Your task to perform on an android device: toggle location history Image 0: 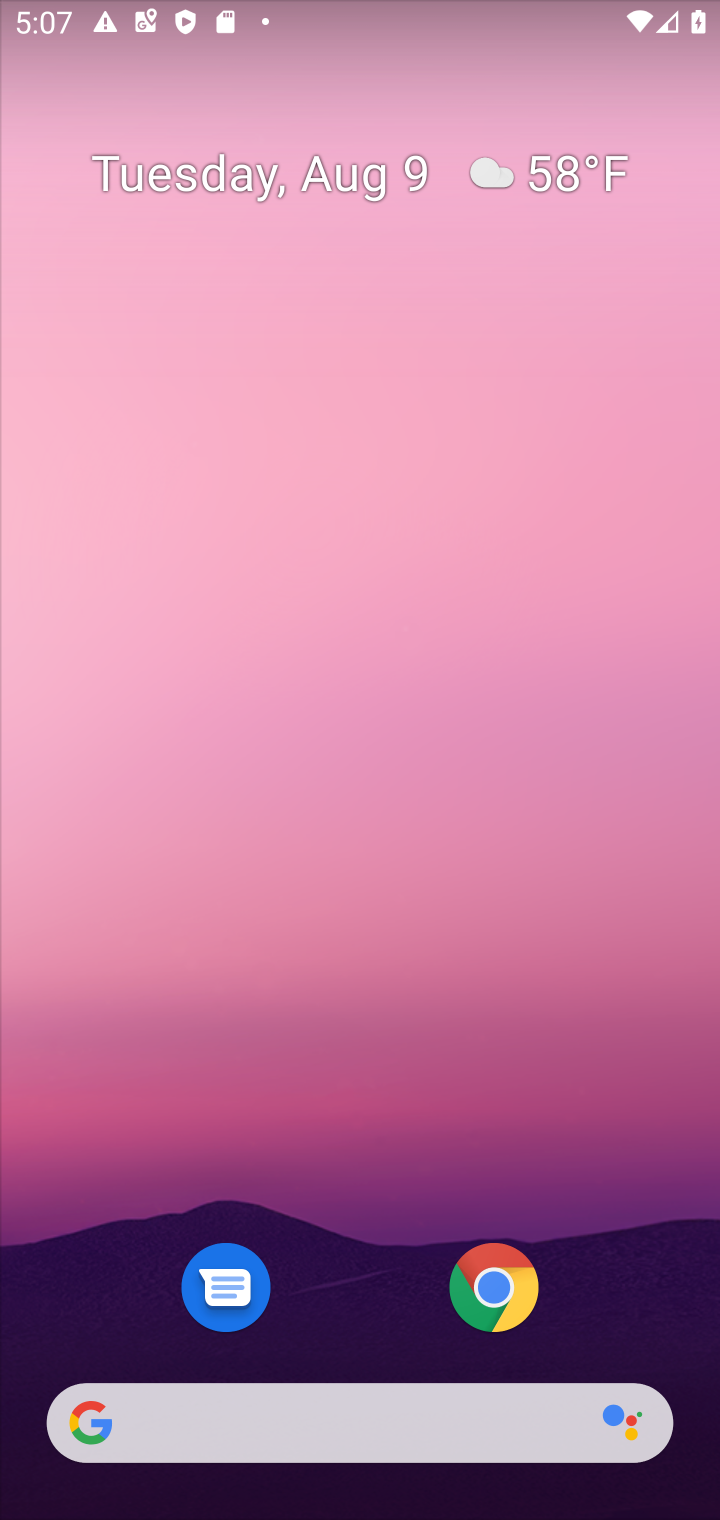
Step 0: drag from (404, 1179) to (493, 428)
Your task to perform on an android device: toggle location history Image 1: 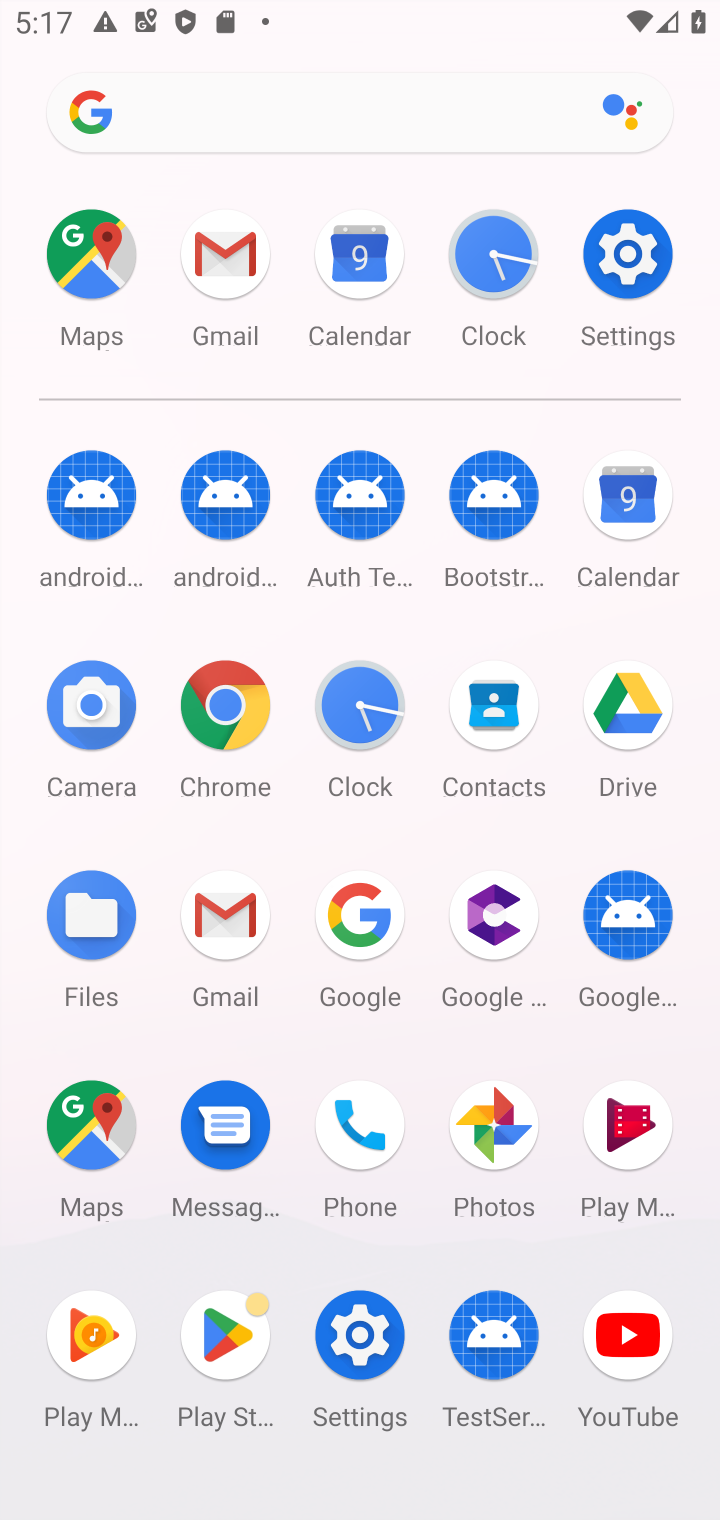
Step 1: click (355, 1350)
Your task to perform on an android device: toggle location history Image 2: 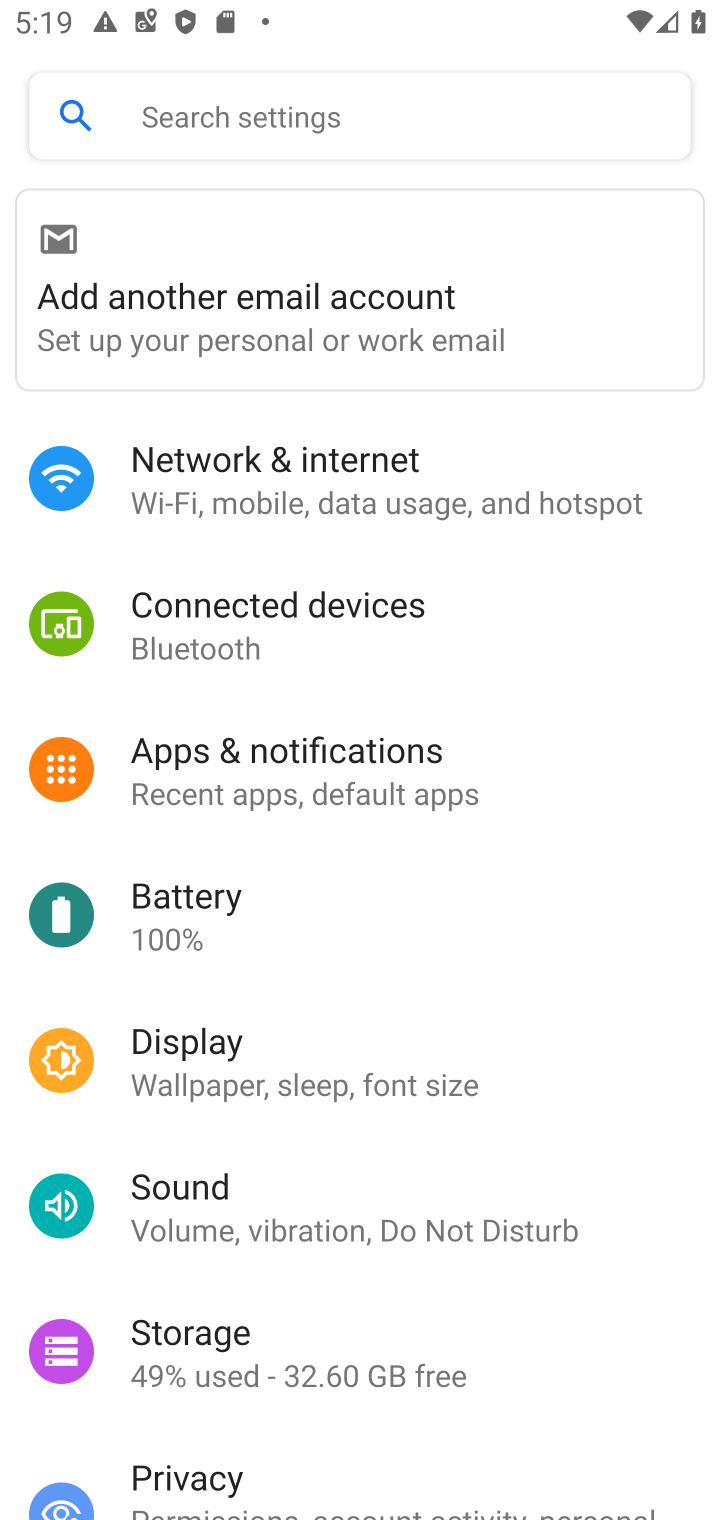
Step 2: drag from (437, 906) to (419, 354)
Your task to perform on an android device: toggle location history Image 3: 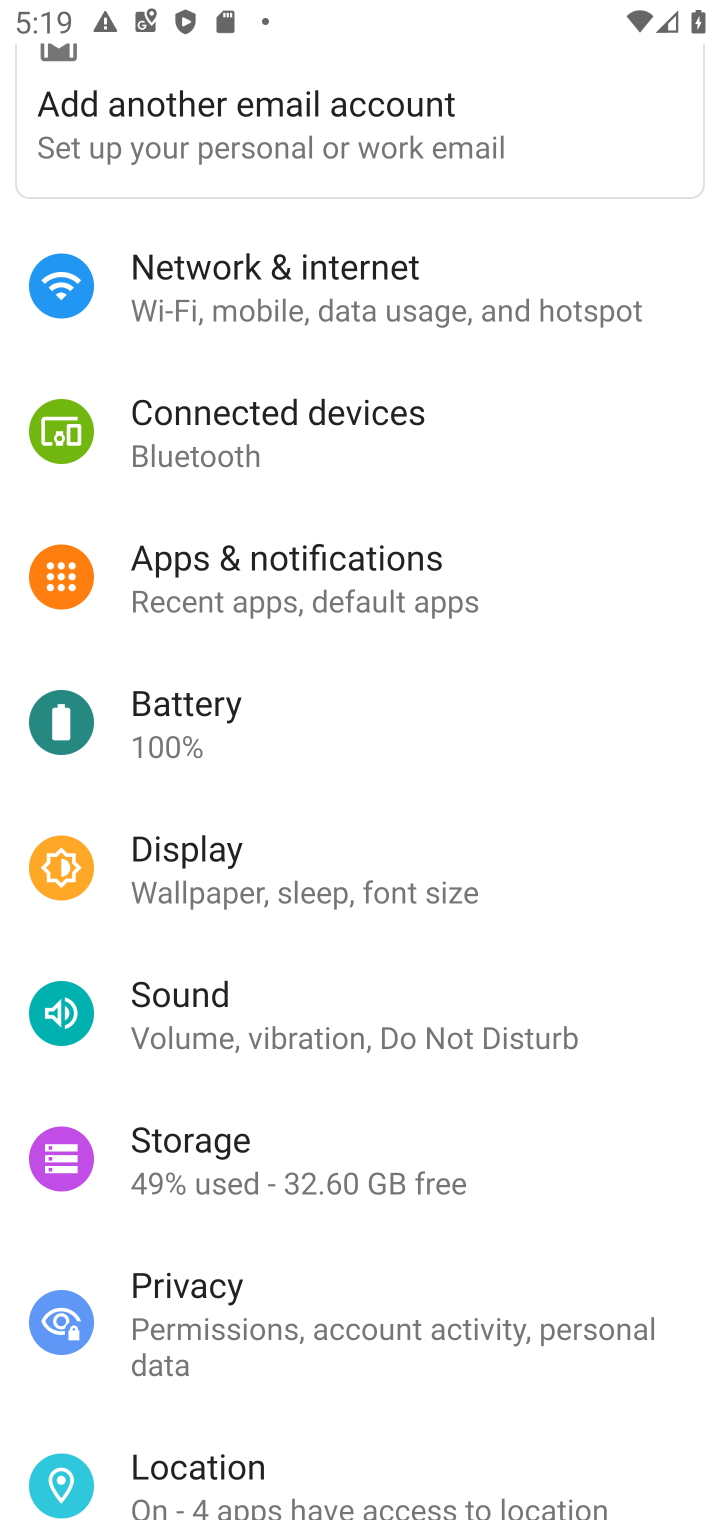
Step 3: drag from (447, 746) to (486, 454)
Your task to perform on an android device: toggle location history Image 4: 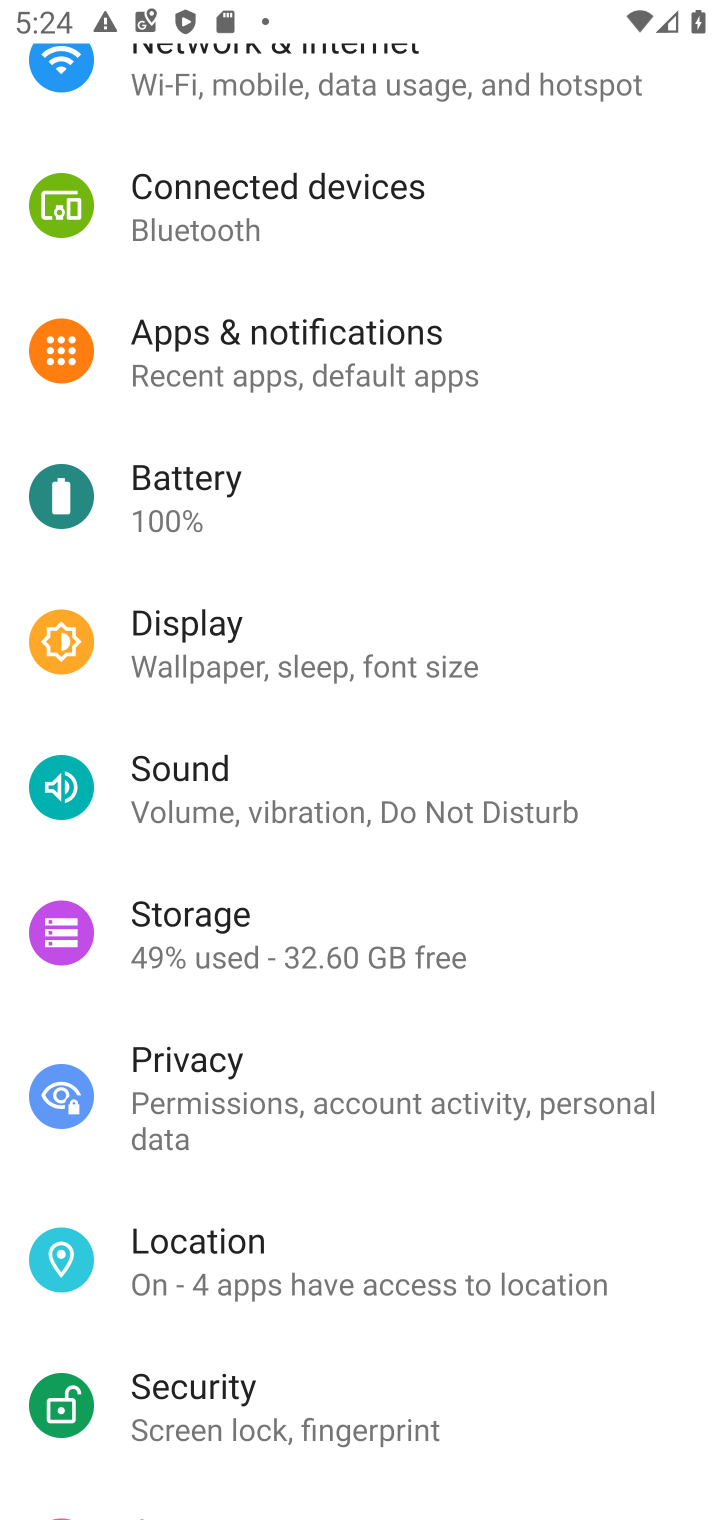
Step 4: press home button
Your task to perform on an android device: toggle location history Image 5: 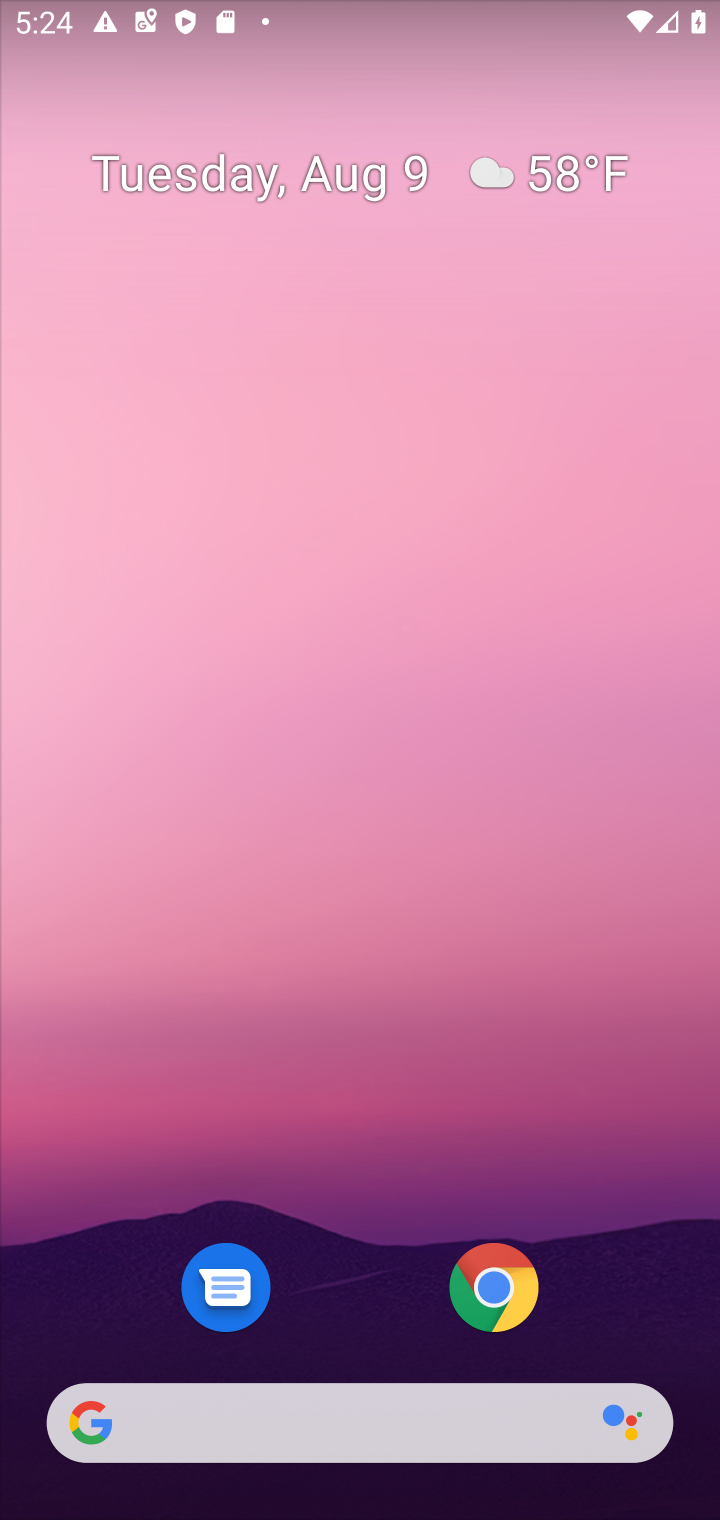
Step 5: drag from (382, 1046) to (402, 110)
Your task to perform on an android device: toggle location history Image 6: 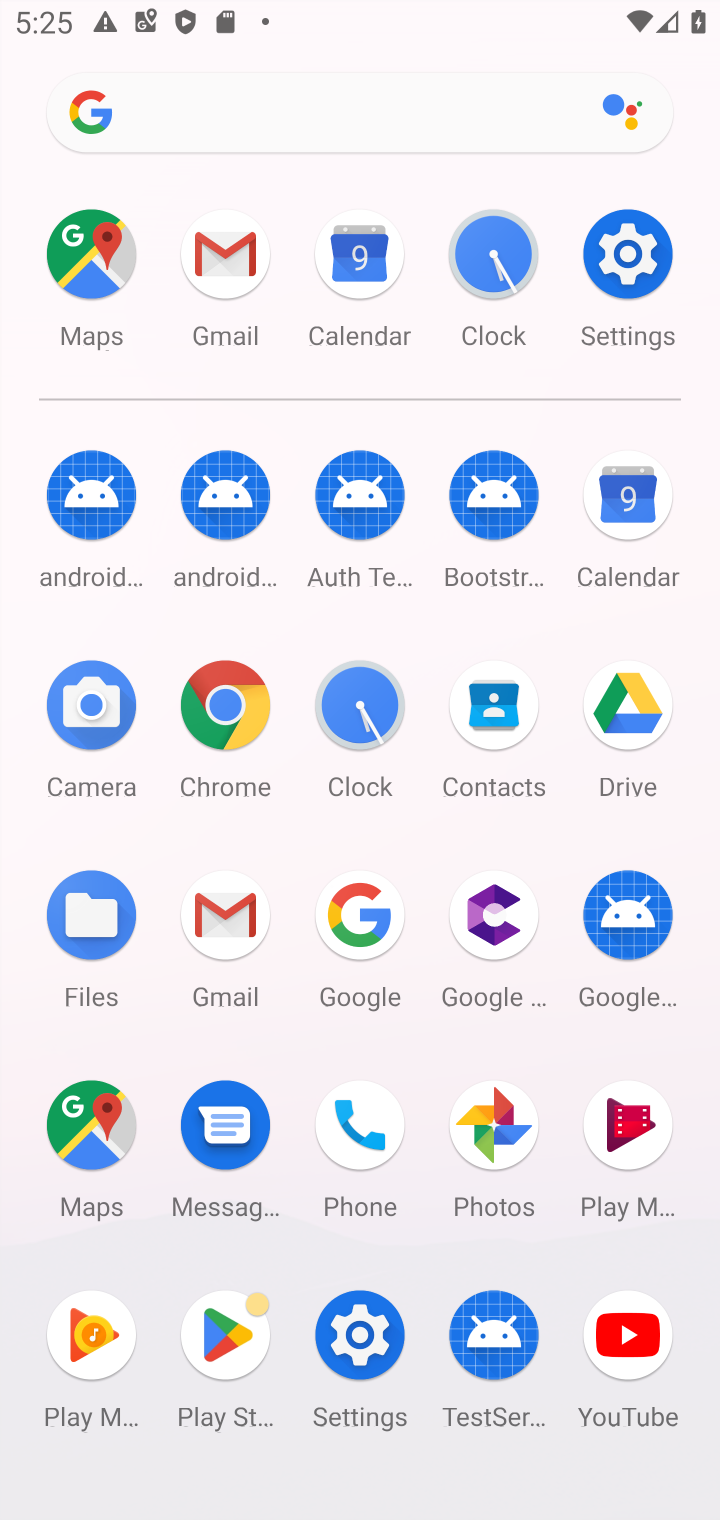
Step 6: click (363, 1367)
Your task to perform on an android device: toggle location history Image 7: 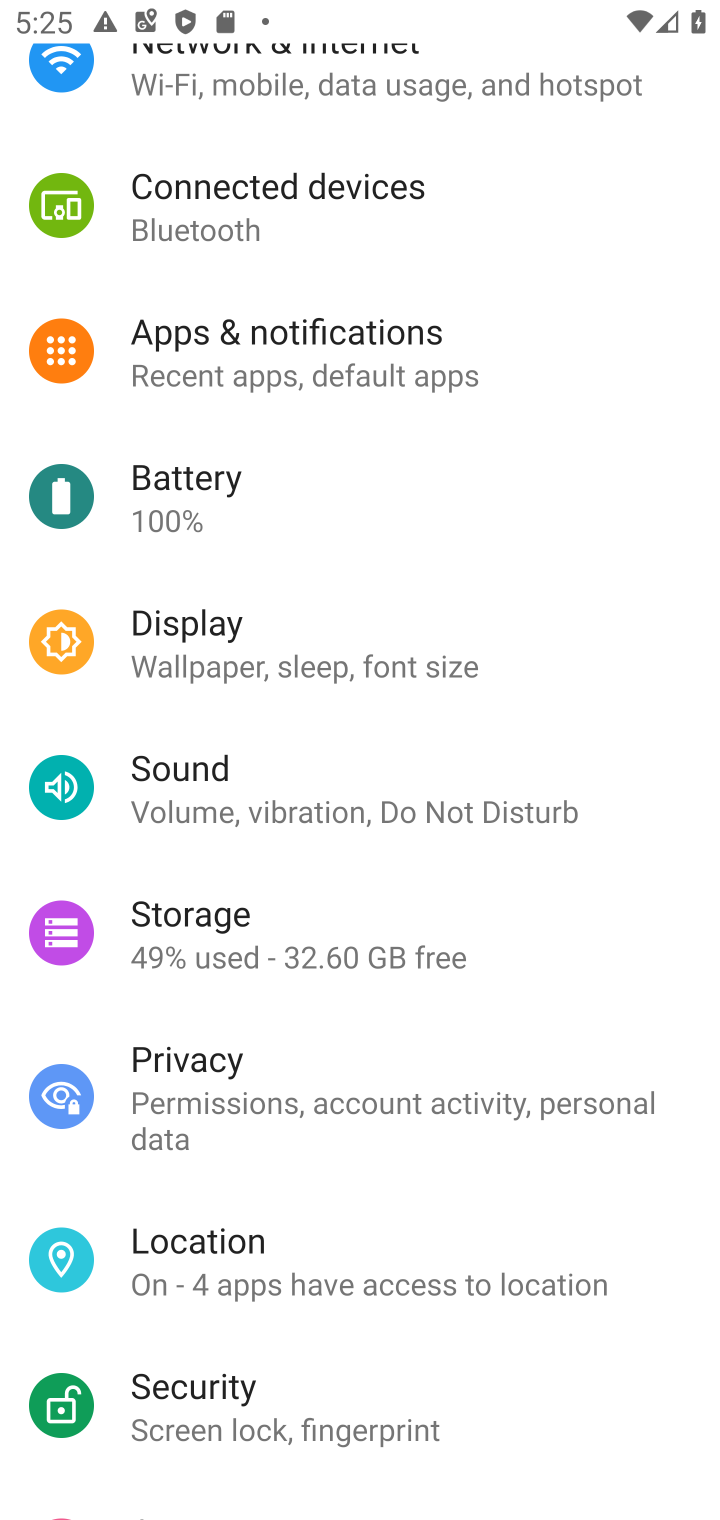
Step 7: drag from (412, 935) to (418, 393)
Your task to perform on an android device: toggle location history Image 8: 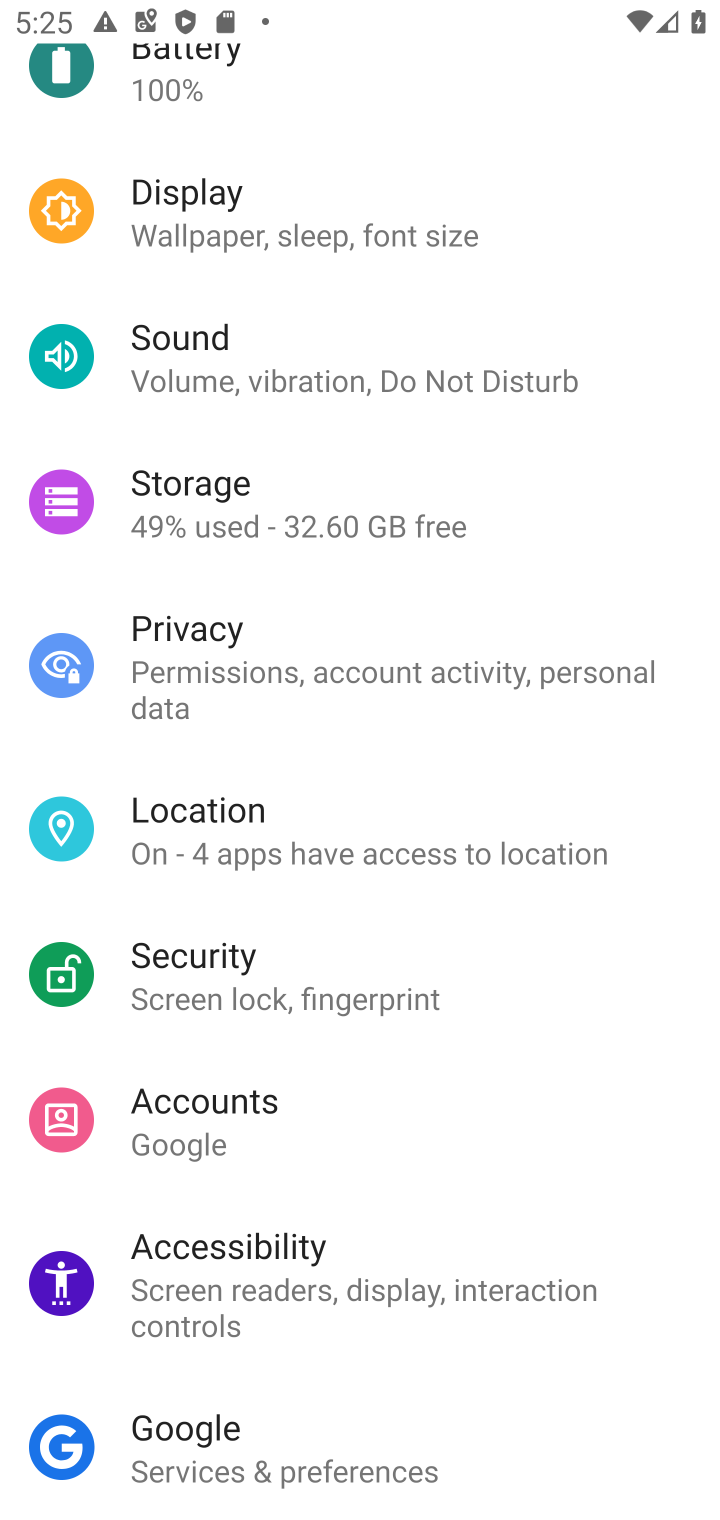
Step 8: drag from (407, 1367) to (374, 708)
Your task to perform on an android device: toggle location history Image 9: 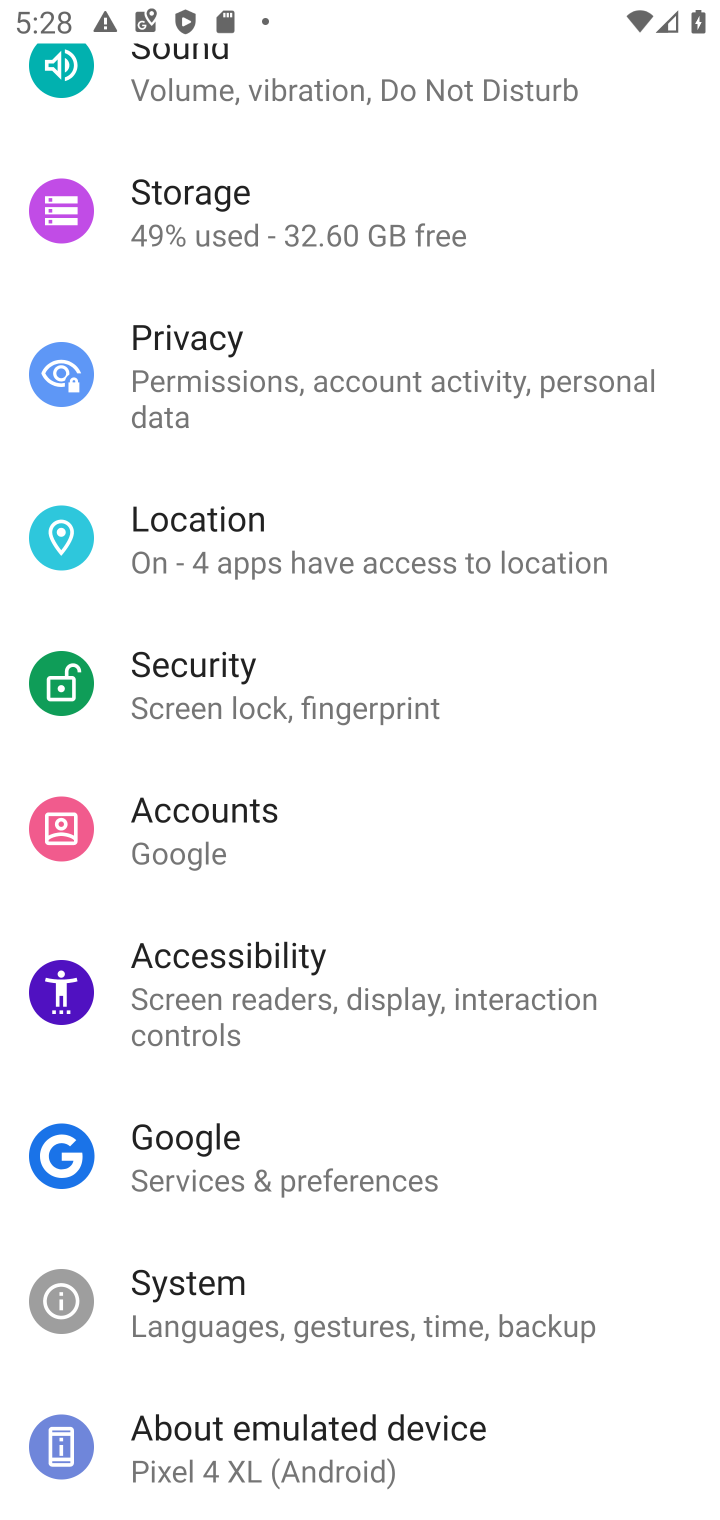
Step 9: press home button
Your task to perform on an android device: toggle location history Image 10: 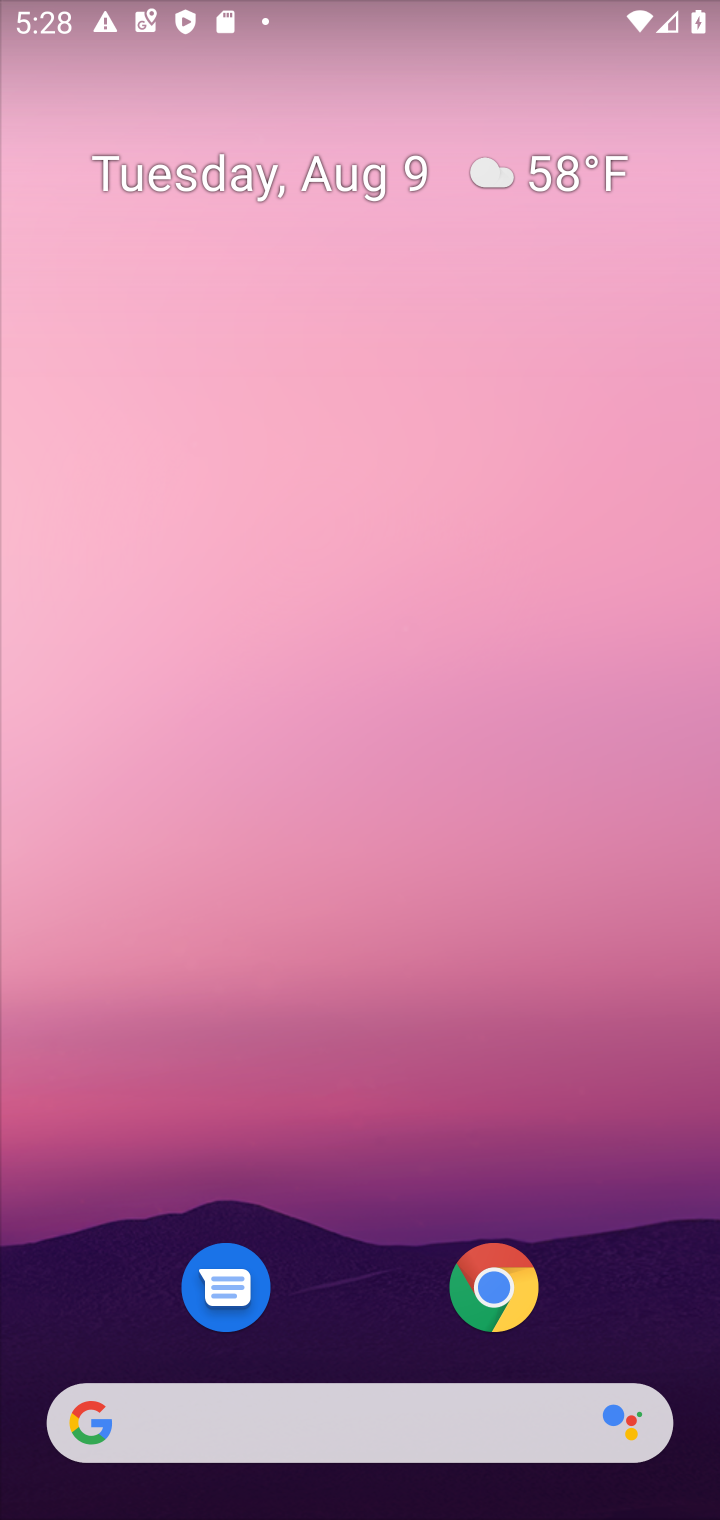
Step 10: click (469, 1279)
Your task to perform on an android device: toggle location history Image 11: 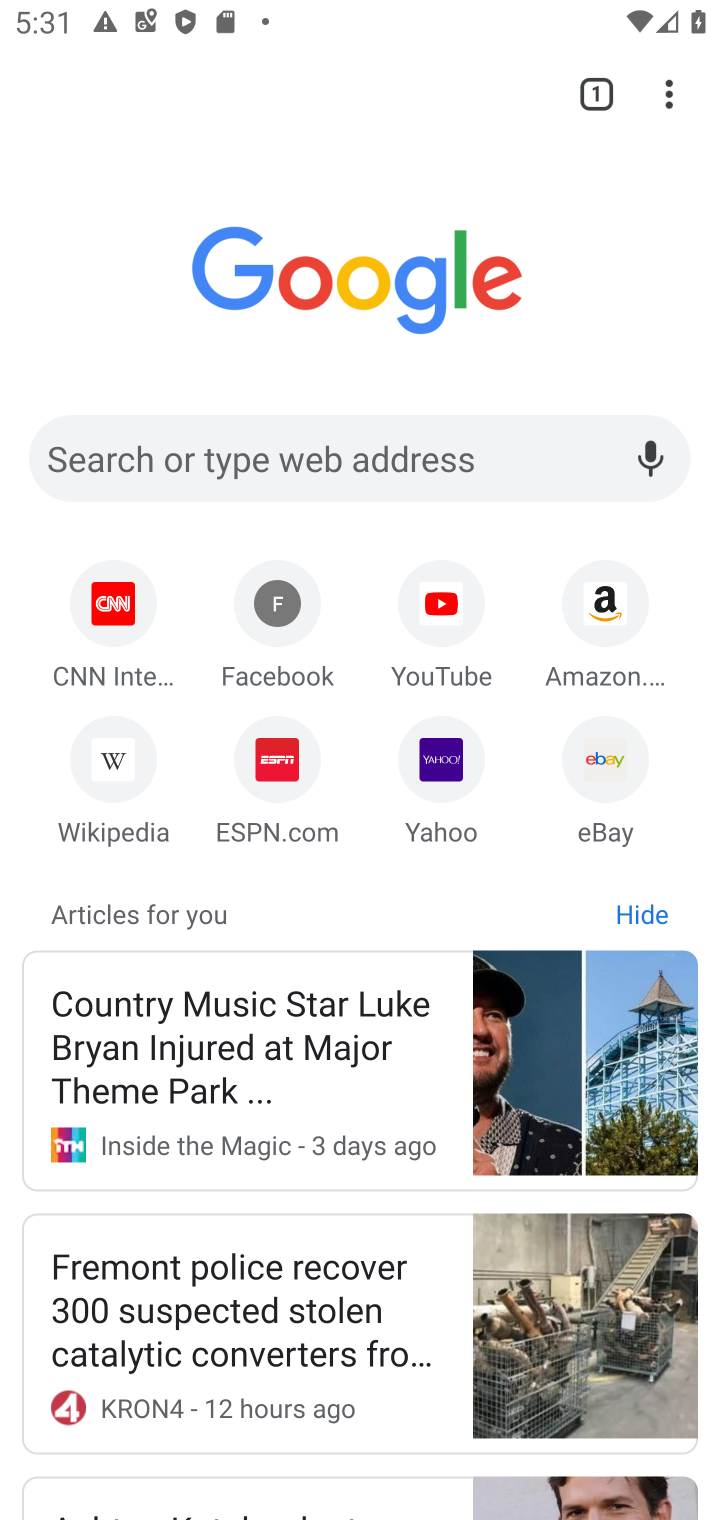
Step 11: press home button
Your task to perform on an android device: toggle location history Image 12: 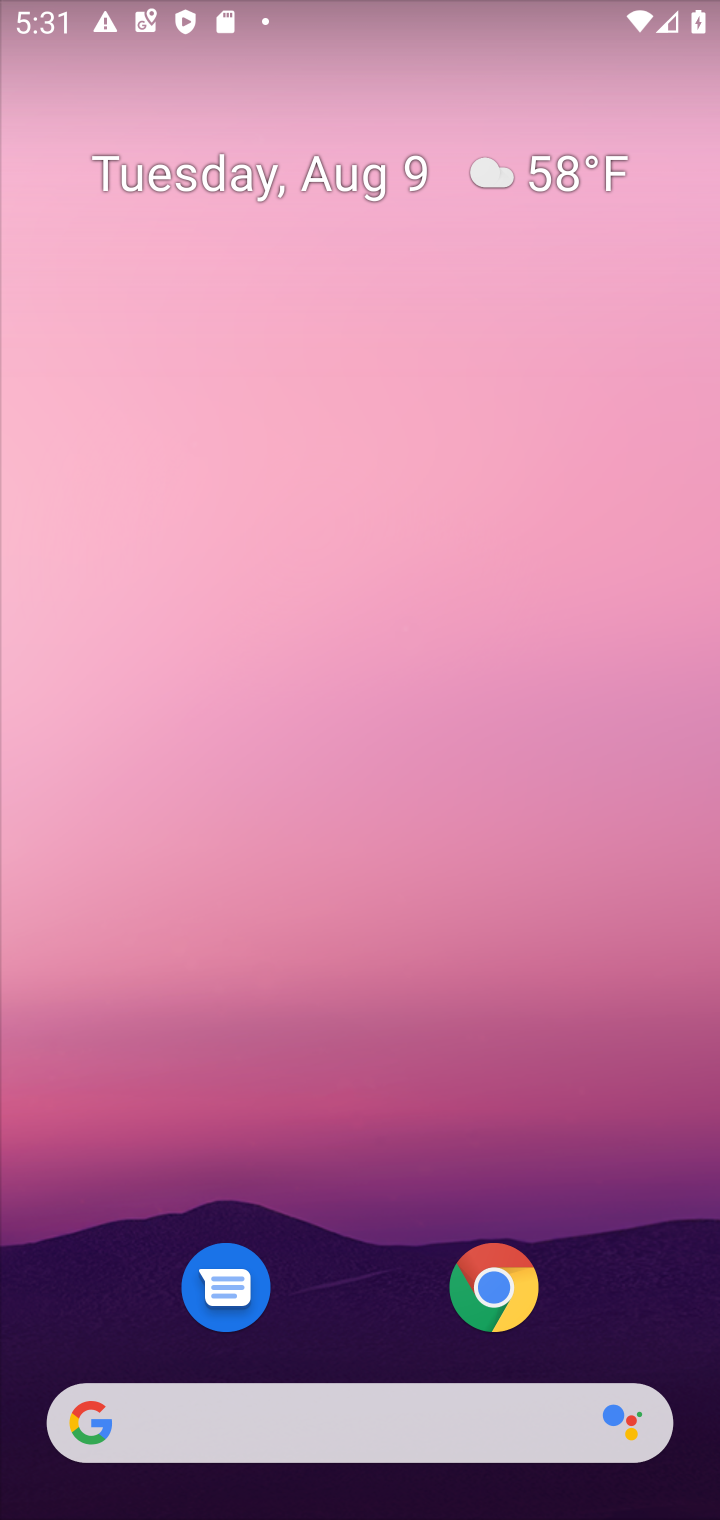
Step 12: drag from (325, 337) to (344, 227)
Your task to perform on an android device: toggle location history Image 13: 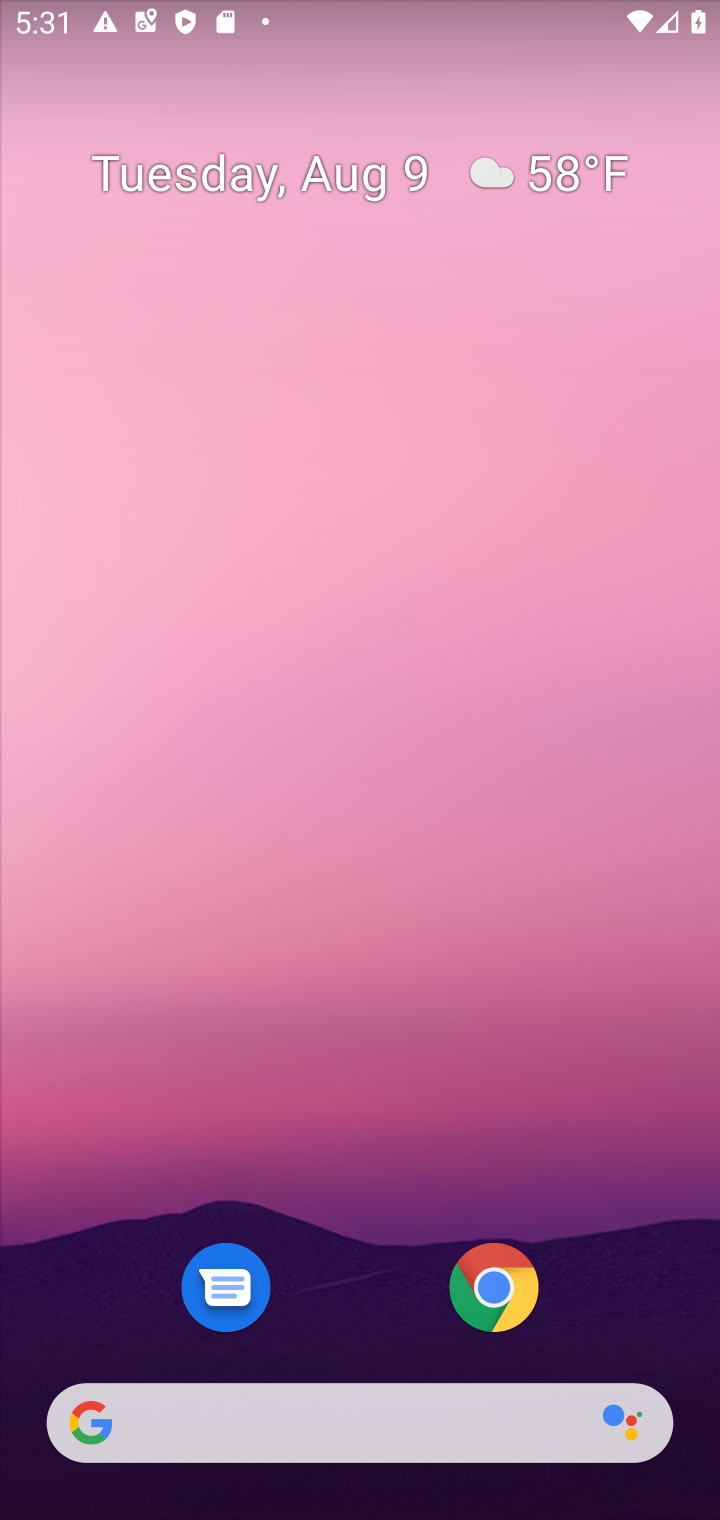
Step 13: drag from (328, 449) to (323, 52)
Your task to perform on an android device: toggle location history Image 14: 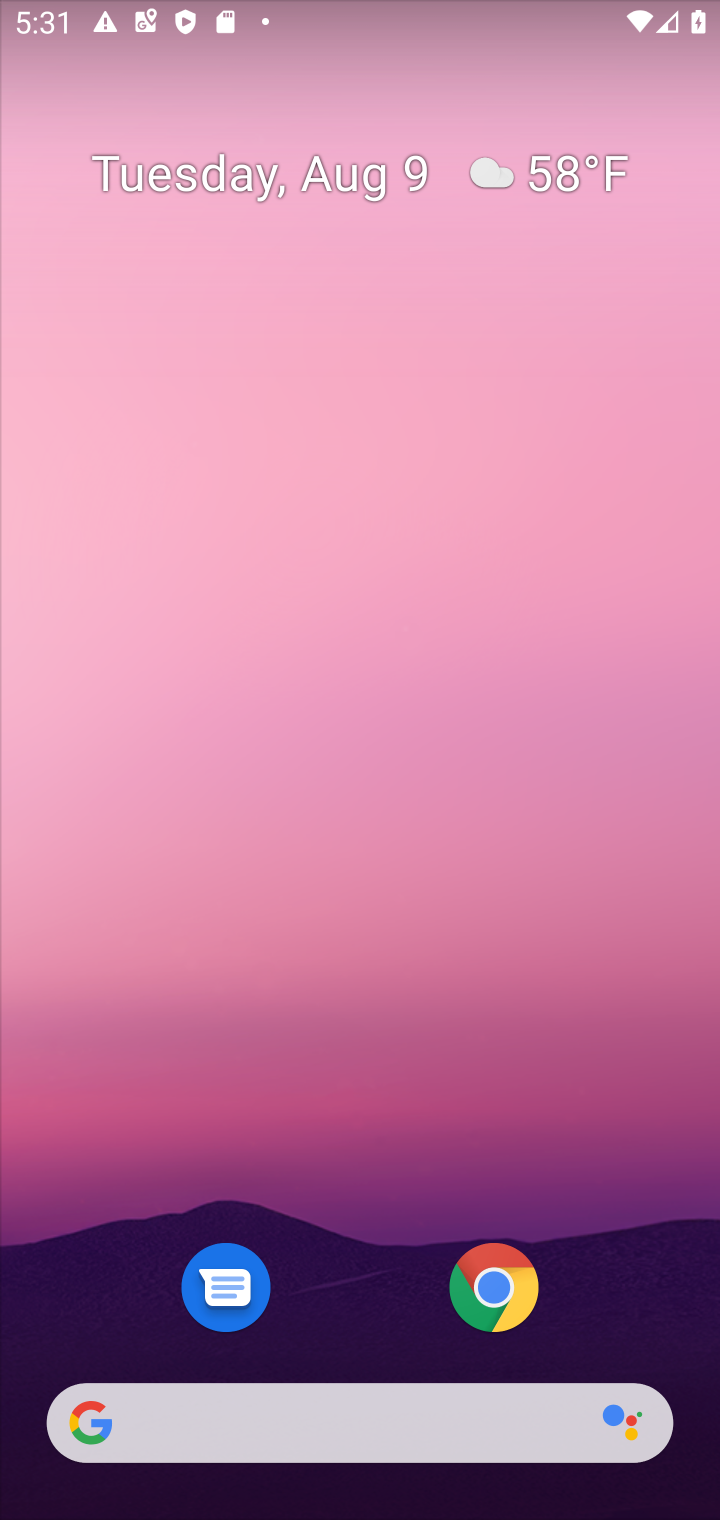
Step 14: drag from (413, 1125) to (457, 4)
Your task to perform on an android device: toggle location history Image 15: 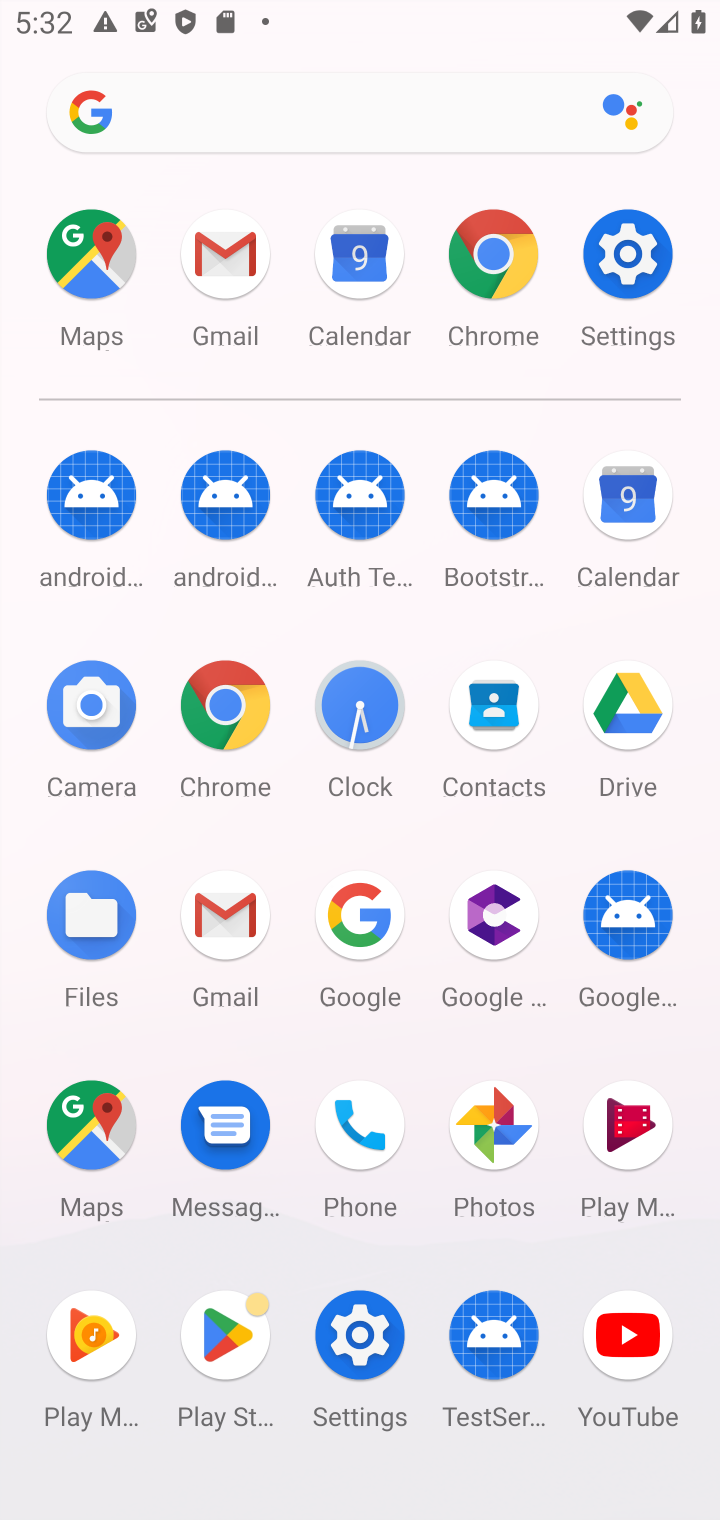
Step 15: click (645, 270)
Your task to perform on an android device: toggle location history Image 16: 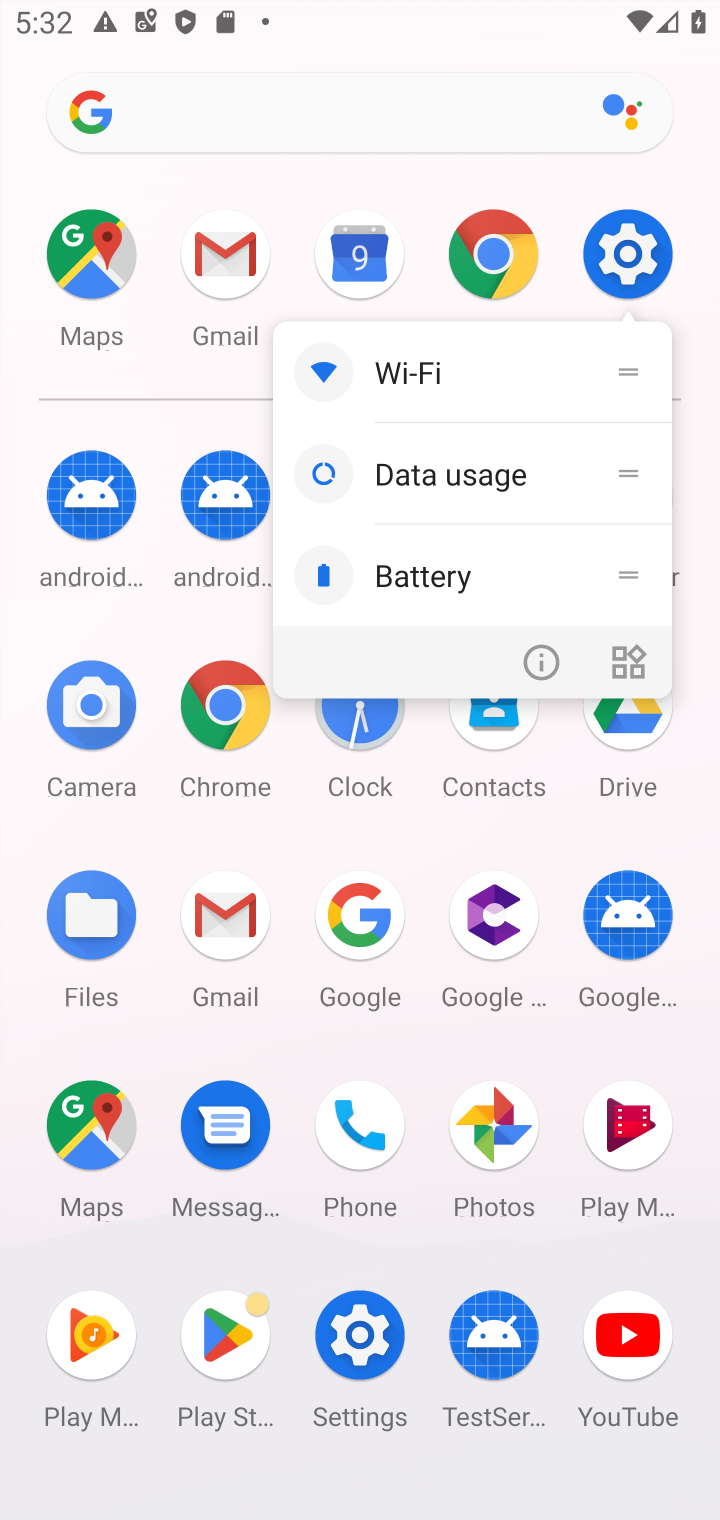
Step 16: task complete